Your task to perform on an android device: Open ESPN.com Image 0: 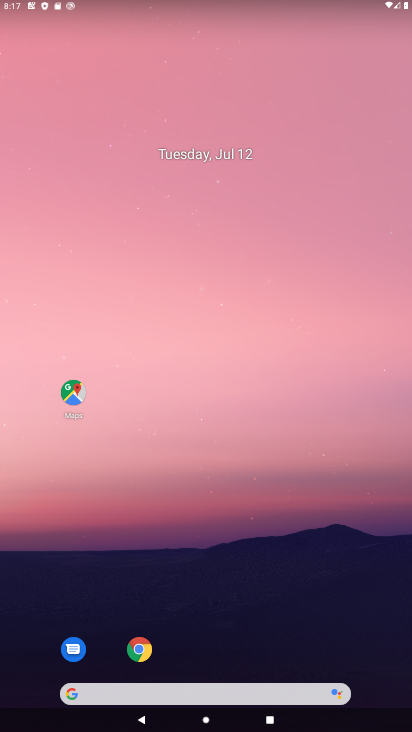
Step 0: drag from (230, 642) to (191, 138)
Your task to perform on an android device: Open ESPN.com Image 1: 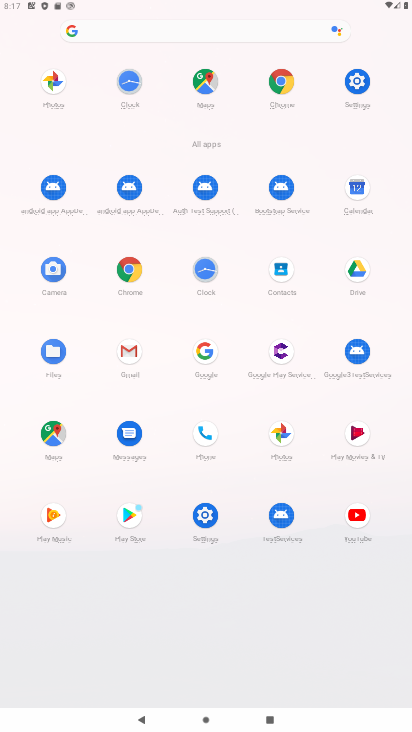
Step 1: click (201, 347)
Your task to perform on an android device: Open ESPN.com Image 2: 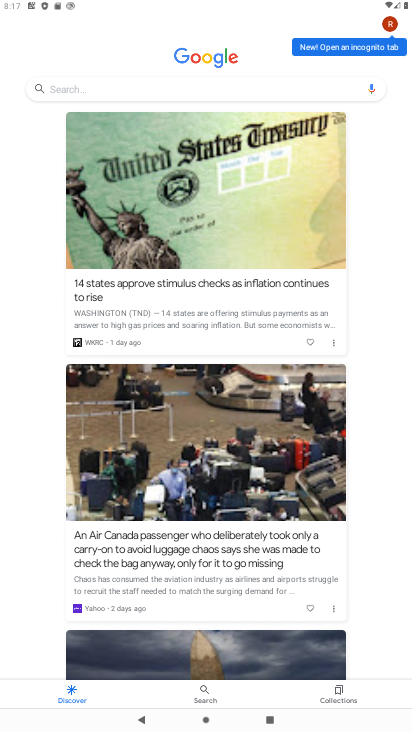
Step 2: click (86, 89)
Your task to perform on an android device: Open ESPN.com Image 3: 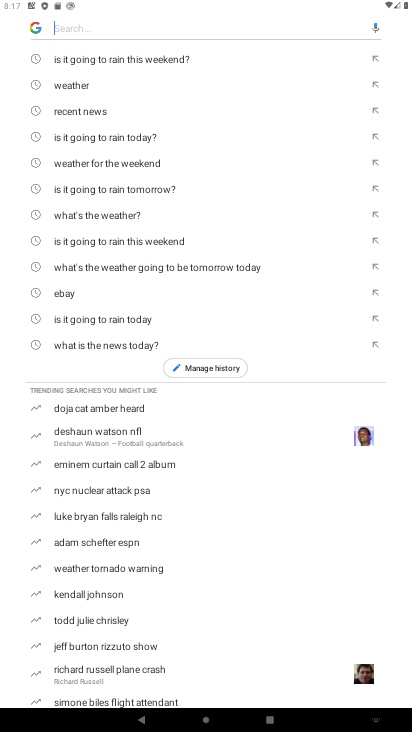
Step 3: type "espn.com"
Your task to perform on an android device: Open ESPN.com Image 4: 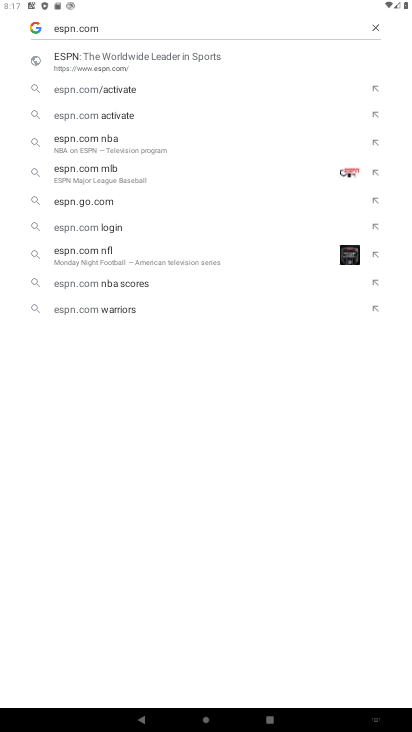
Step 4: click (106, 57)
Your task to perform on an android device: Open ESPN.com Image 5: 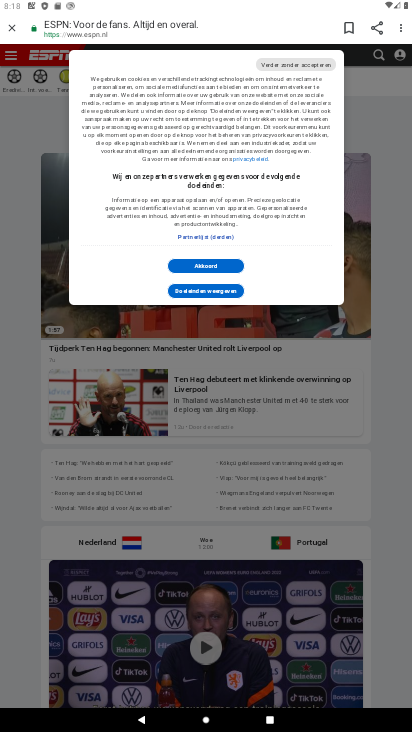
Step 5: task complete